Your task to perform on an android device: Show me popular games on the Play Store Image 0: 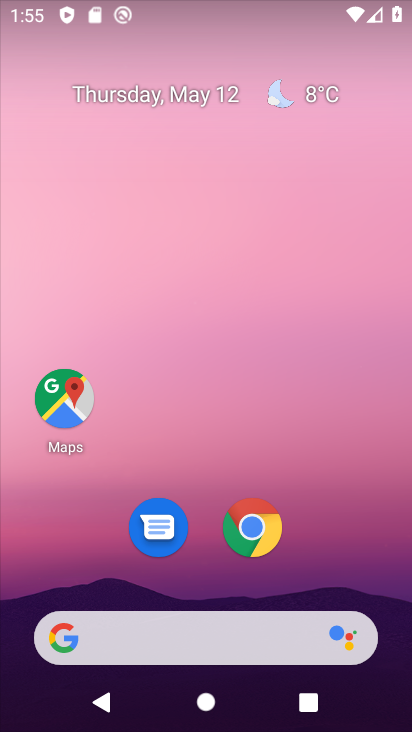
Step 0: drag from (168, 586) to (259, 83)
Your task to perform on an android device: Show me popular games on the Play Store Image 1: 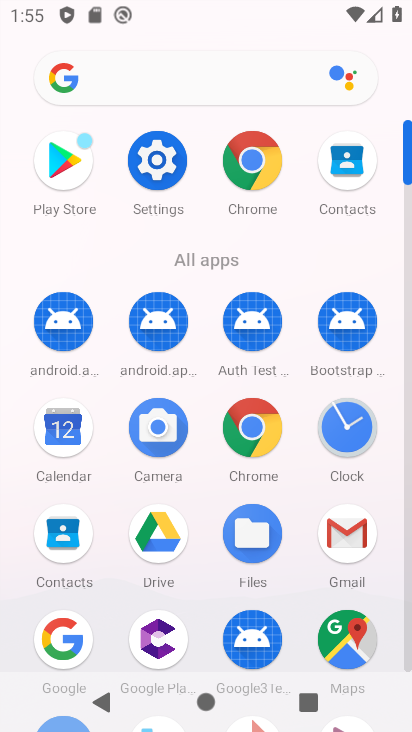
Step 1: drag from (151, 673) to (242, 301)
Your task to perform on an android device: Show me popular games on the Play Store Image 2: 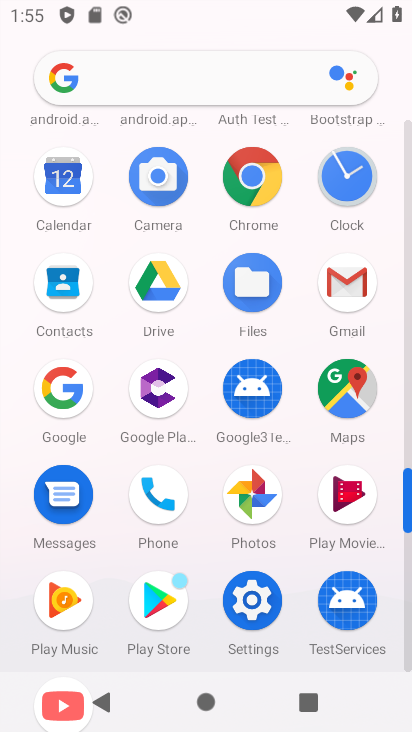
Step 2: click (168, 618)
Your task to perform on an android device: Show me popular games on the Play Store Image 3: 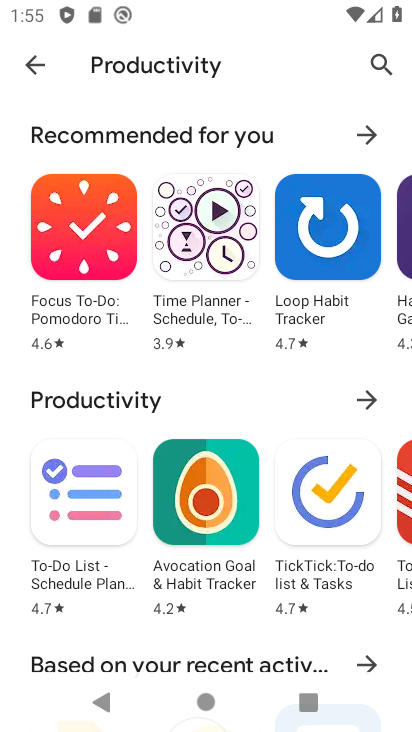
Step 3: click (62, 80)
Your task to perform on an android device: Show me popular games on the Play Store Image 4: 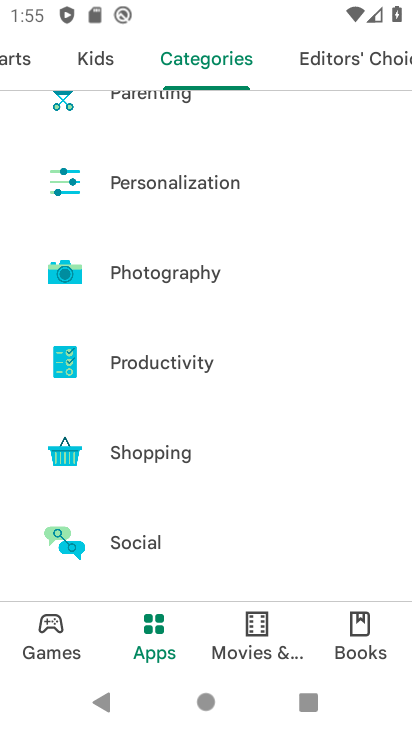
Step 4: click (62, 632)
Your task to perform on an android device: Show me popular games on the Play Store Image 5: 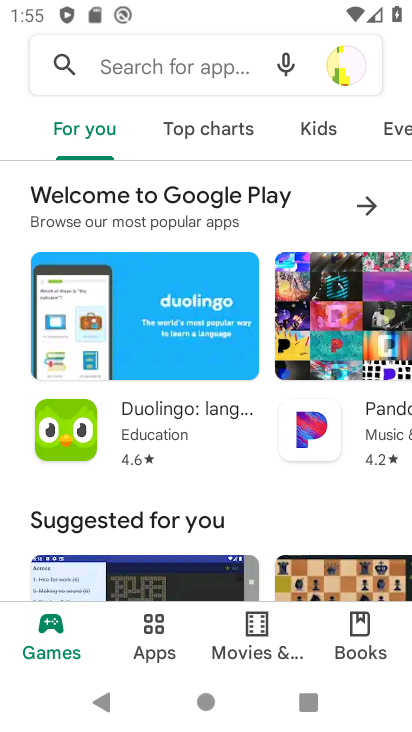
Step 5: drag from (164, 490) to (266, 103)
Your task to perform on an android device: Show me popular games on the Play Store Image 6: 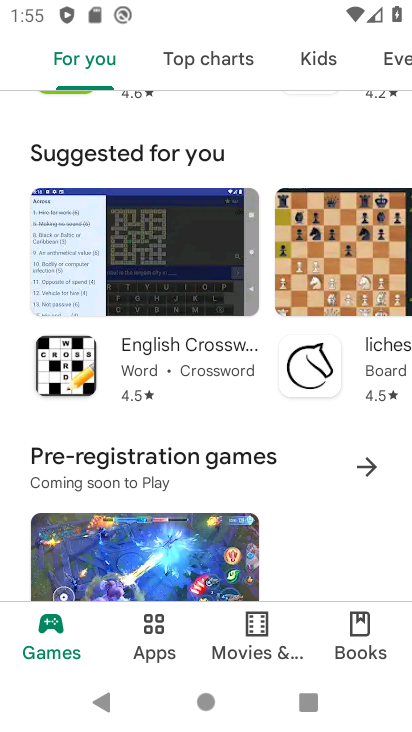
Step 6: drag from (217, 550) to (342, 99)
Your task to perform on an android device: Show me popular games on the Play Store Image 7: 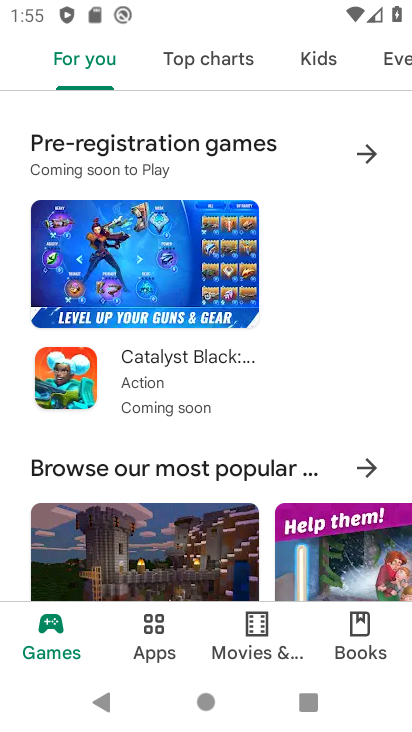
Step 7: click (369, 467)
Your task to perform on an android device: Show me popular games on the Play Store Image 8: 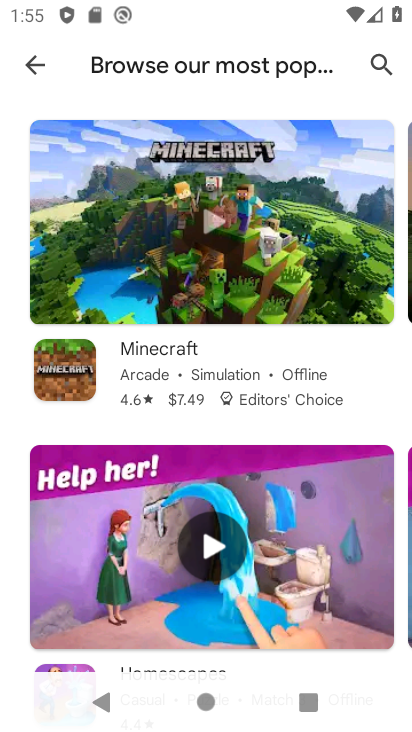
Step 8: task complete